Your task to perform on an android device: Play the last video I watched on Youtube Image 0: 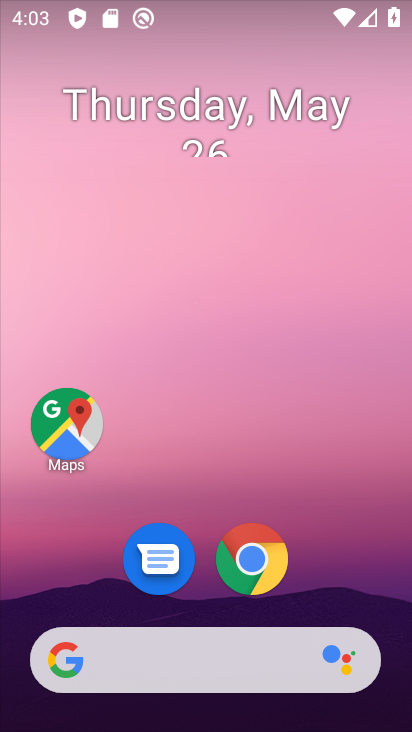
Step 0: drag from (355, 467) to (252, 4)
Your task to perform on an android device: Play the last video I watched on Youtube Image 1: 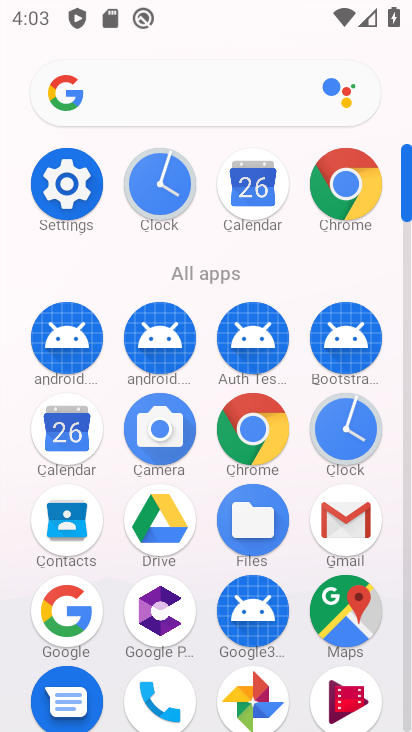
Step 1: drag from (301, 656) to (208, 188)
Your task to perform on an android device: Play the last video I watched on Youtube Image 2: 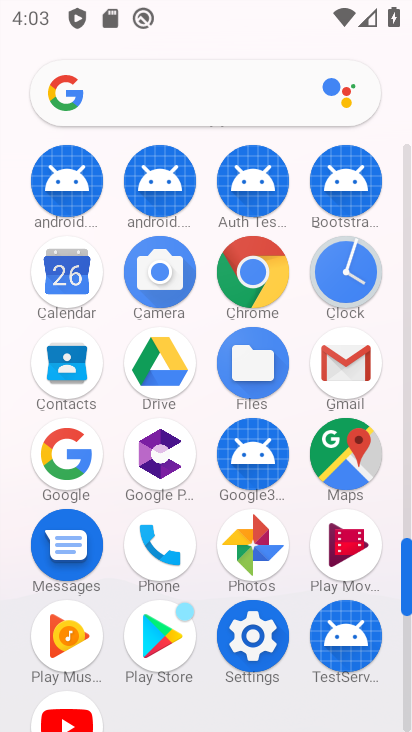
Step 2: click (69, 716)
Your task to perform on an android device: Play the last video I watched on Youtube Image 3: 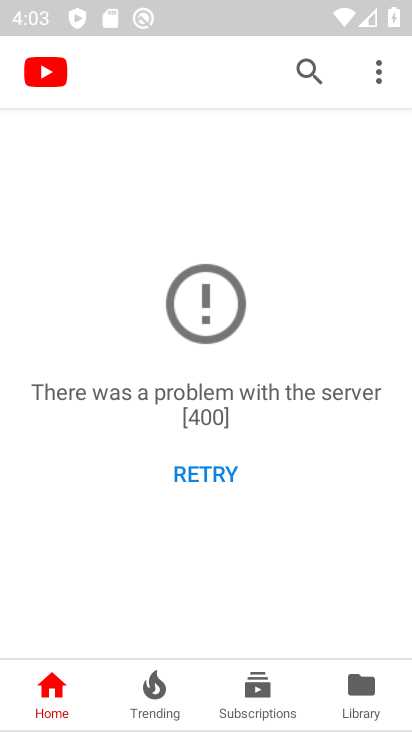
Step 3: click (378, 719)
Your task to perform on an android device: Play the last video I watched on Youtube Image 4: 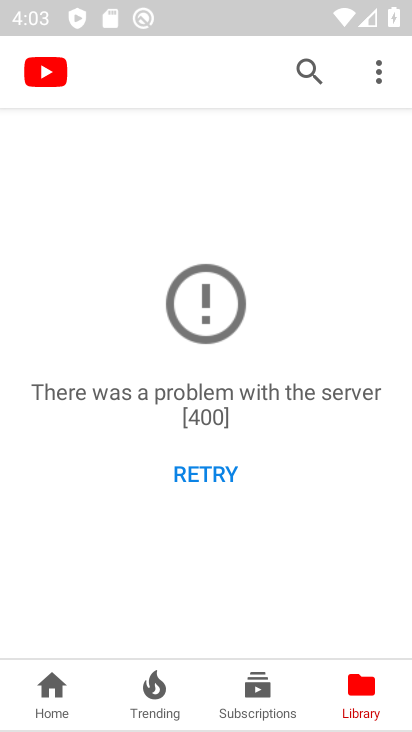
Step 4: click (356, 673)
Your task to perform on an android device: Play the last video I watched on Youtube Image 5: 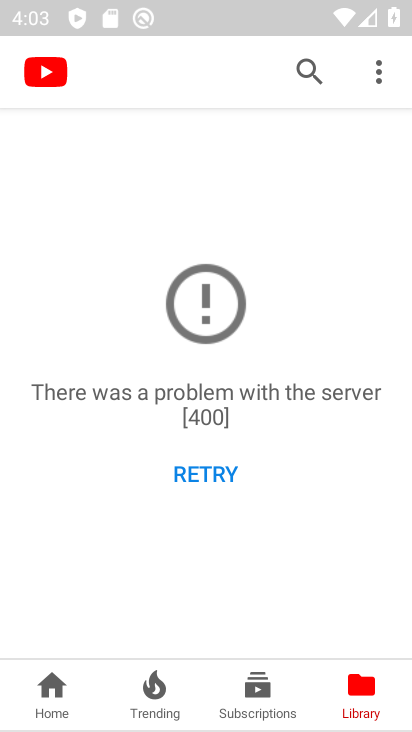
Step 5: task complete